Your task to perform on an android device: Go to Maps Image 0: 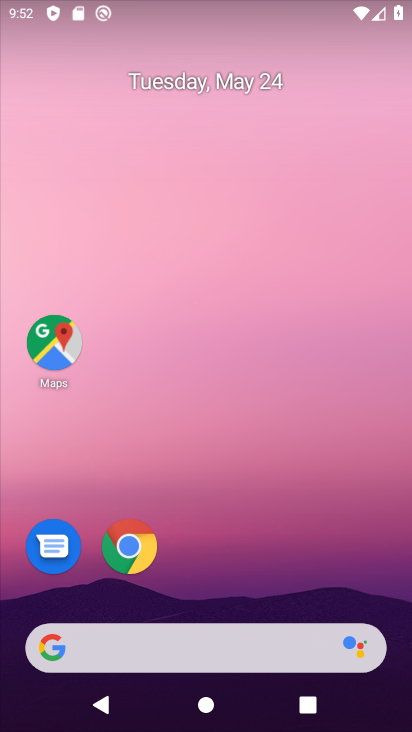
Step 0: click (63, 344)
Your task to perform on an android device: Go to Maps Image 1: 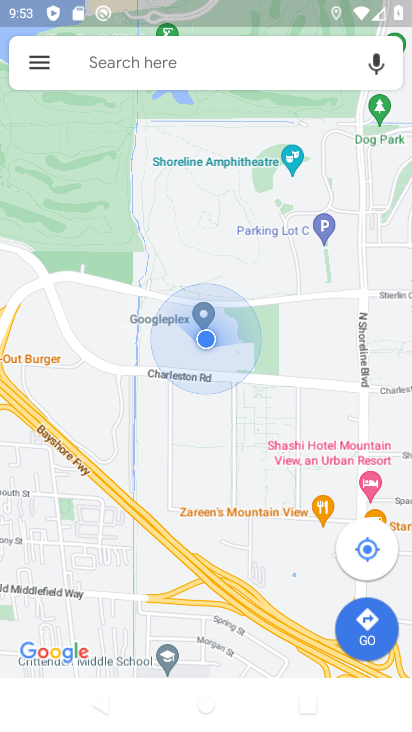
Step 1: task complete